Your task to perform on an android device: What's the latest tech news? Image 0: 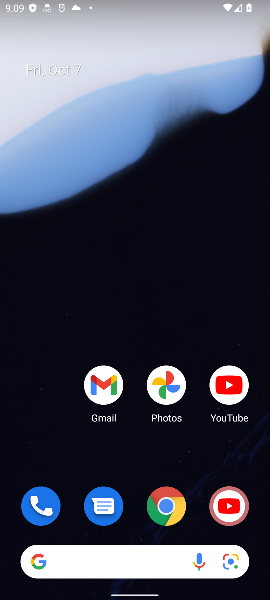
Step 0: click (167, 502)
Your task to perform on an android device: What's the latest tech news? Image 1: 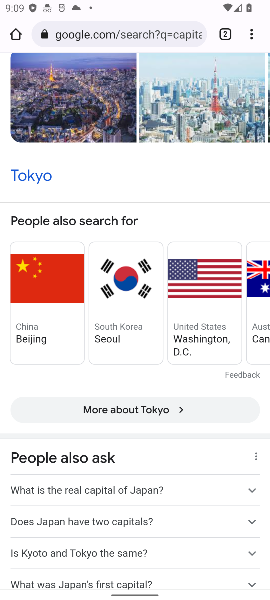
Step 1: click (167, 34)
Your task to perform on an android device: What's the latest tech news? Image 2: 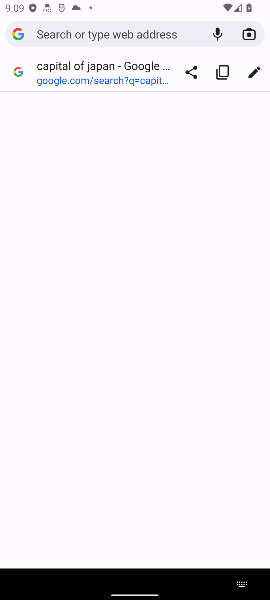
Step 2: type "What's the latest tech news"
Your task to perform on an android device: What's the latest tech news? Image 3: 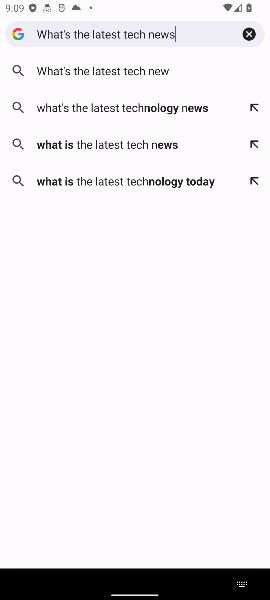
Step 3: press enter
Your task to perform on an android device: What's the latest tech news? Image 4: 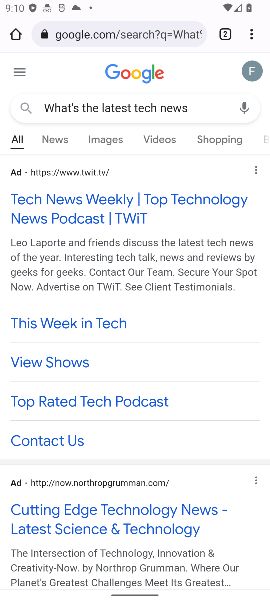
Step 4: click (63, 138)
Your task to perform on an android device: What's the latest tech news? Image 5: 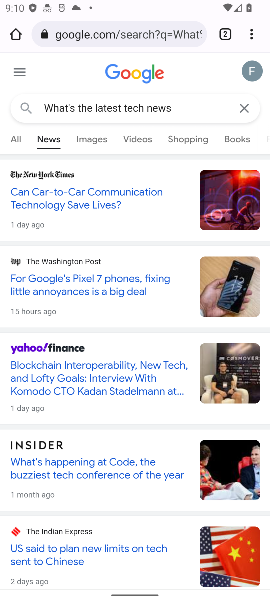
Step 5: click (97, 279)
Your task to perform on an android device: What's the latest tech news? Image 6: 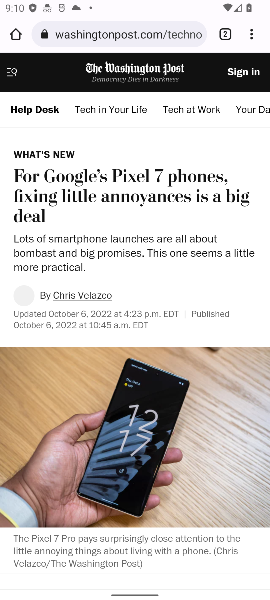
Step 6: drag from (64, 514) to (250, 162)
Your task to perform on an android device: What's the latest tech news? Image 7: 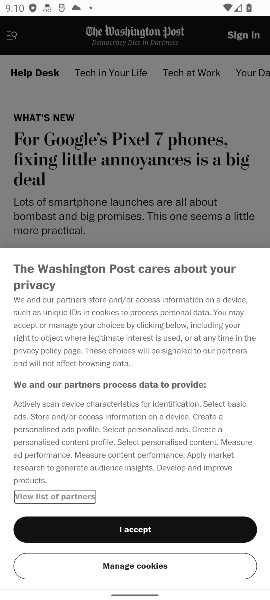
Step 7: click (129, 532)
Your task to perform on an android device: What's the latest tech news? Image 8: 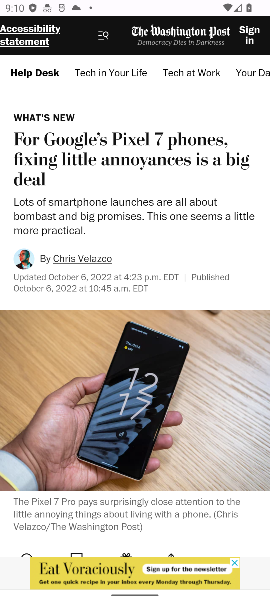
Step 8: task complete